Your task to perform on an android device: change the clock display to show seconds Image 0: 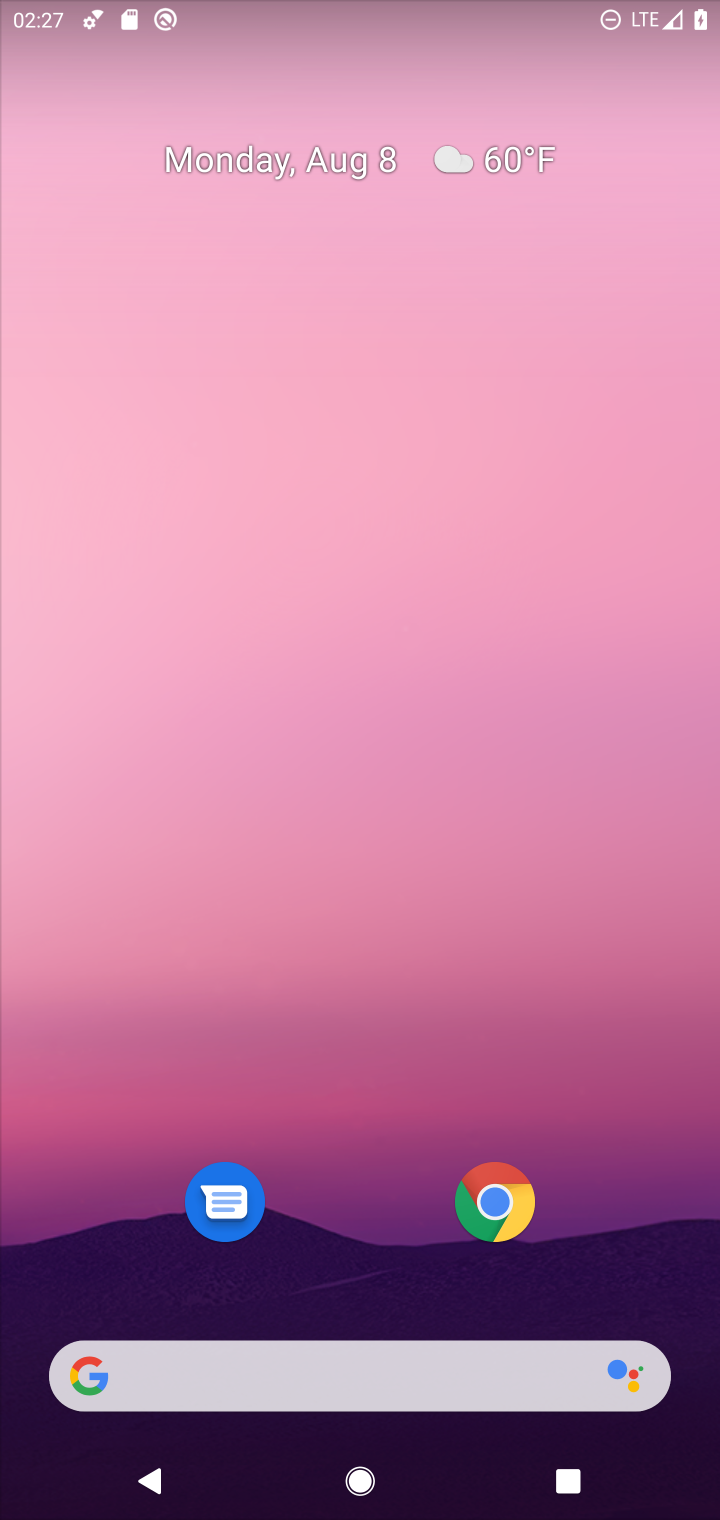
Step 0: press home button
Your task to perform on an android device: change the clock display to show seconds Image 1: 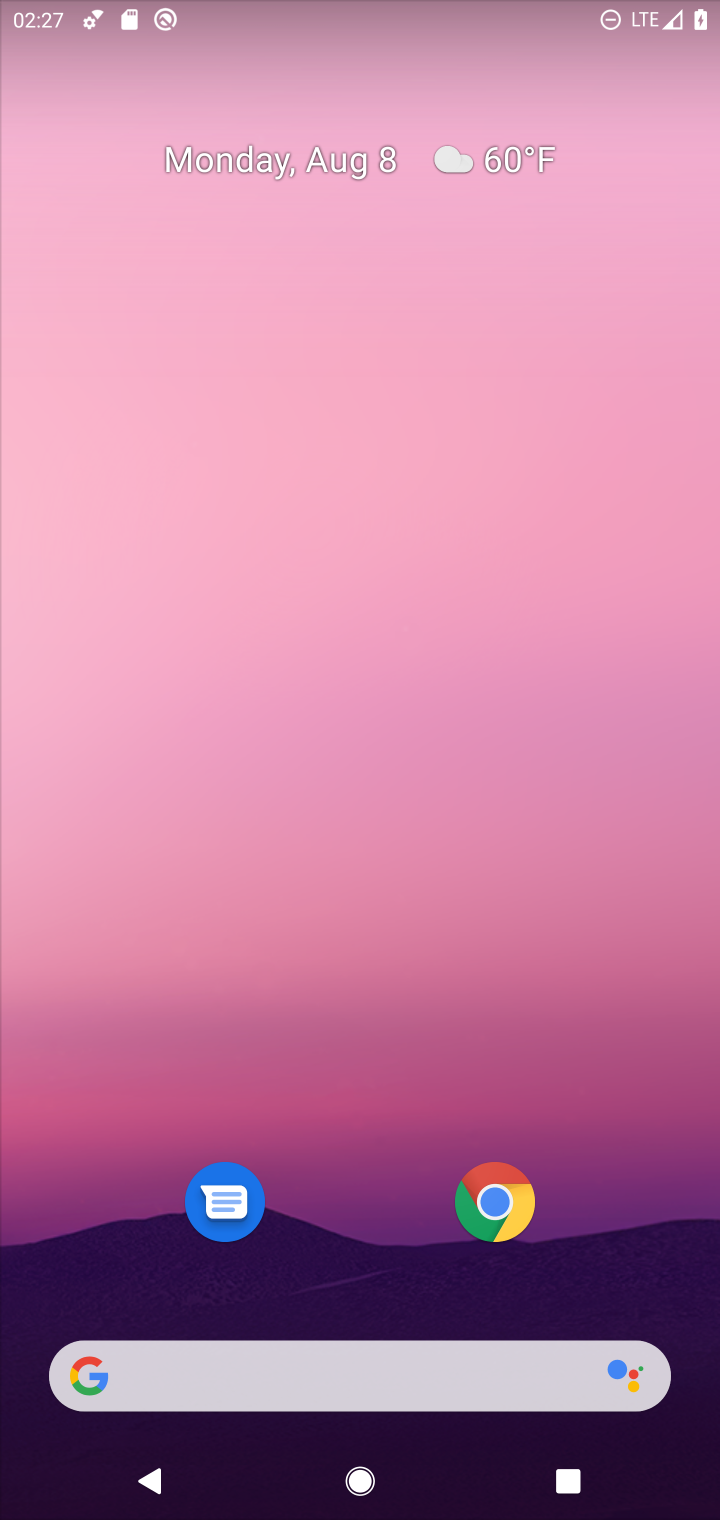
Step 1: drag from (626, 1282) to (584, 396)
Your task to perform on an android device: change the clock display to show seconds Image 2: 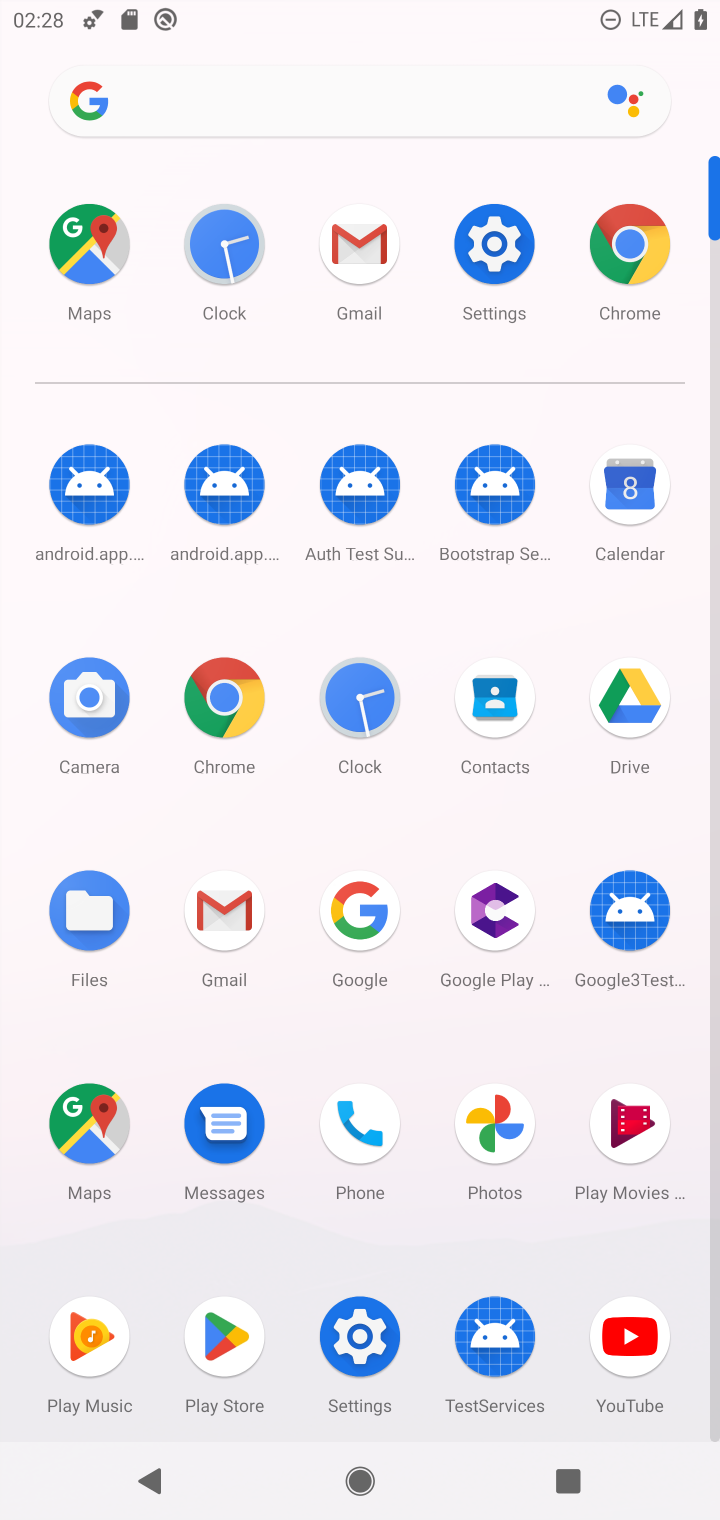
Step 2: click (350, 716)
Your task to perform on an android device: change the clock display to show seconds Image 3: 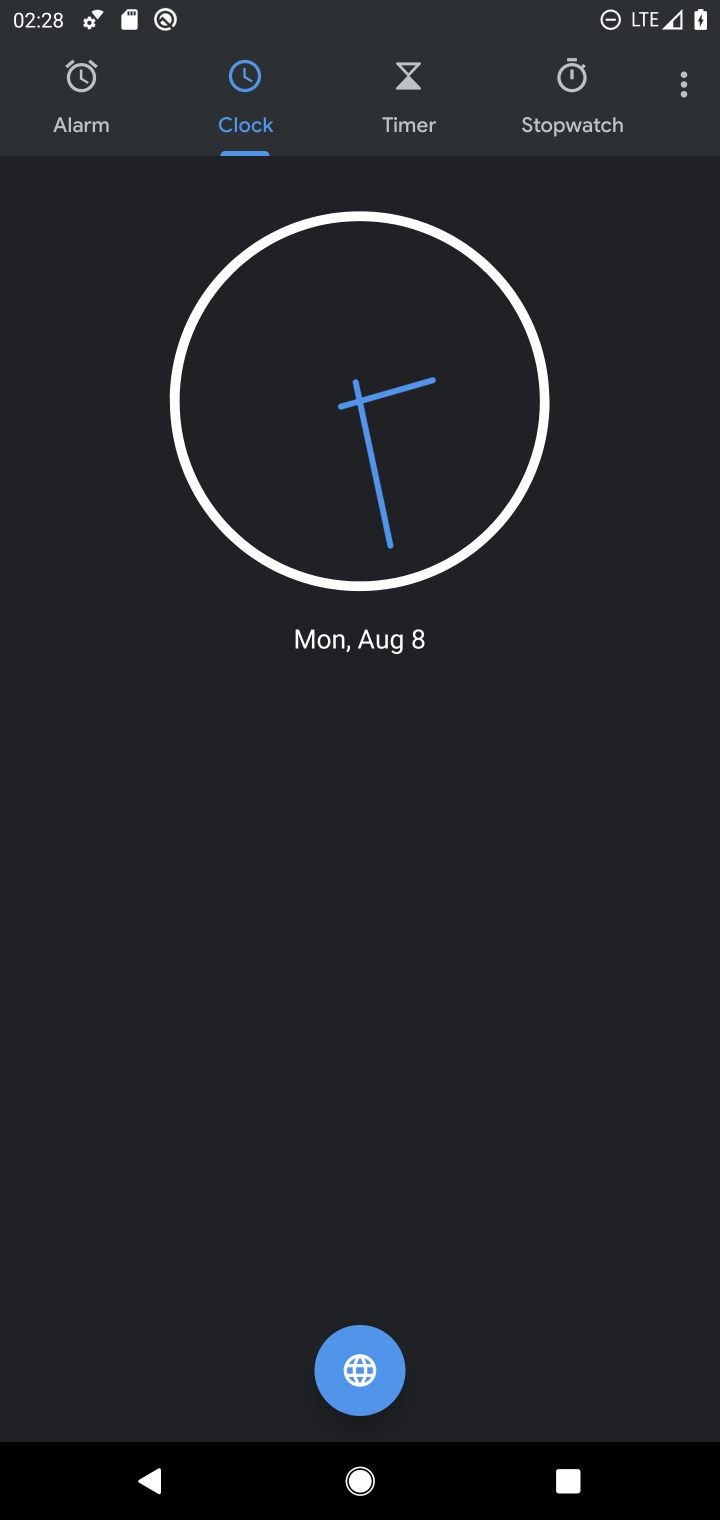
Step 3: click (679, 97)
Your task to perform on an android device: change the clock display to show seconds Image 4: 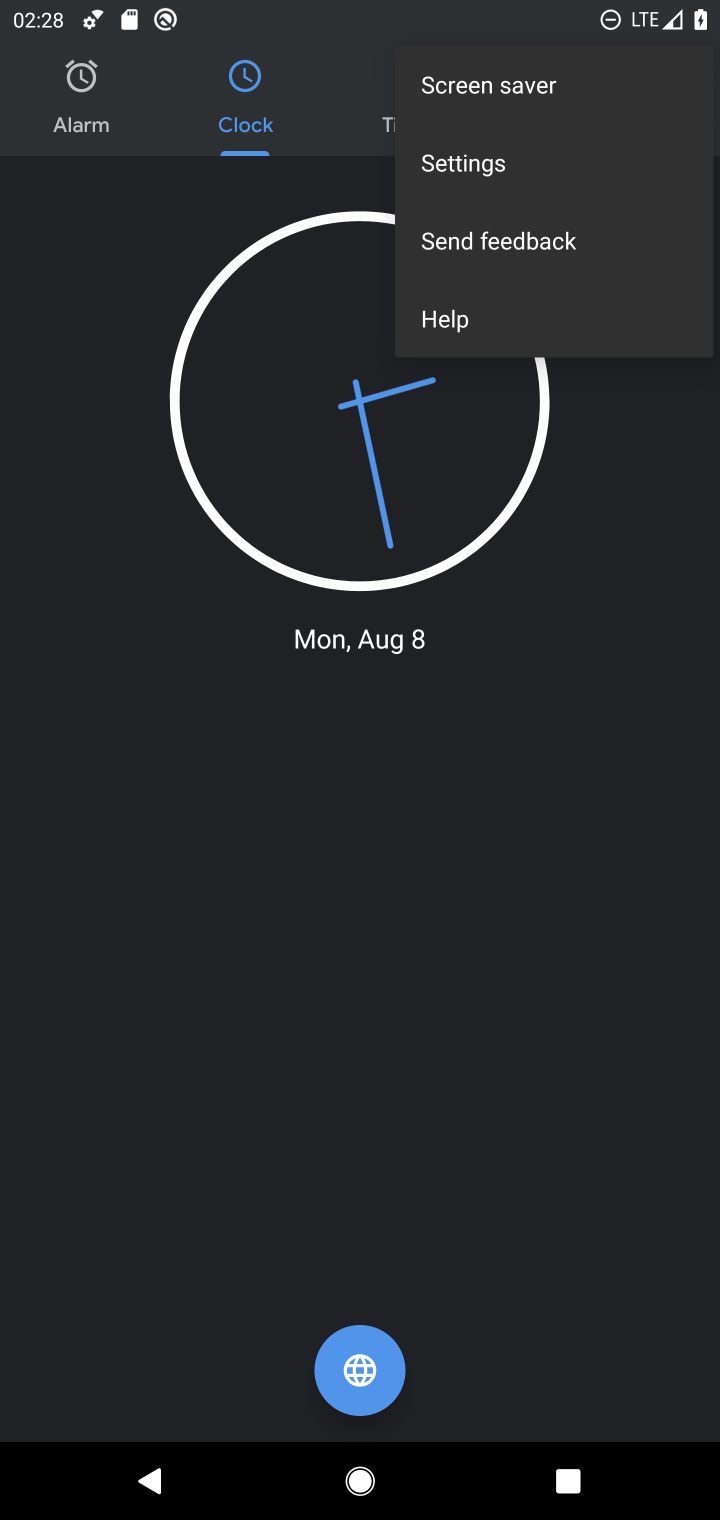
Step 4: click (481, 166)
Your task to perform on an android device: change the clock display to show seconds Image 5: 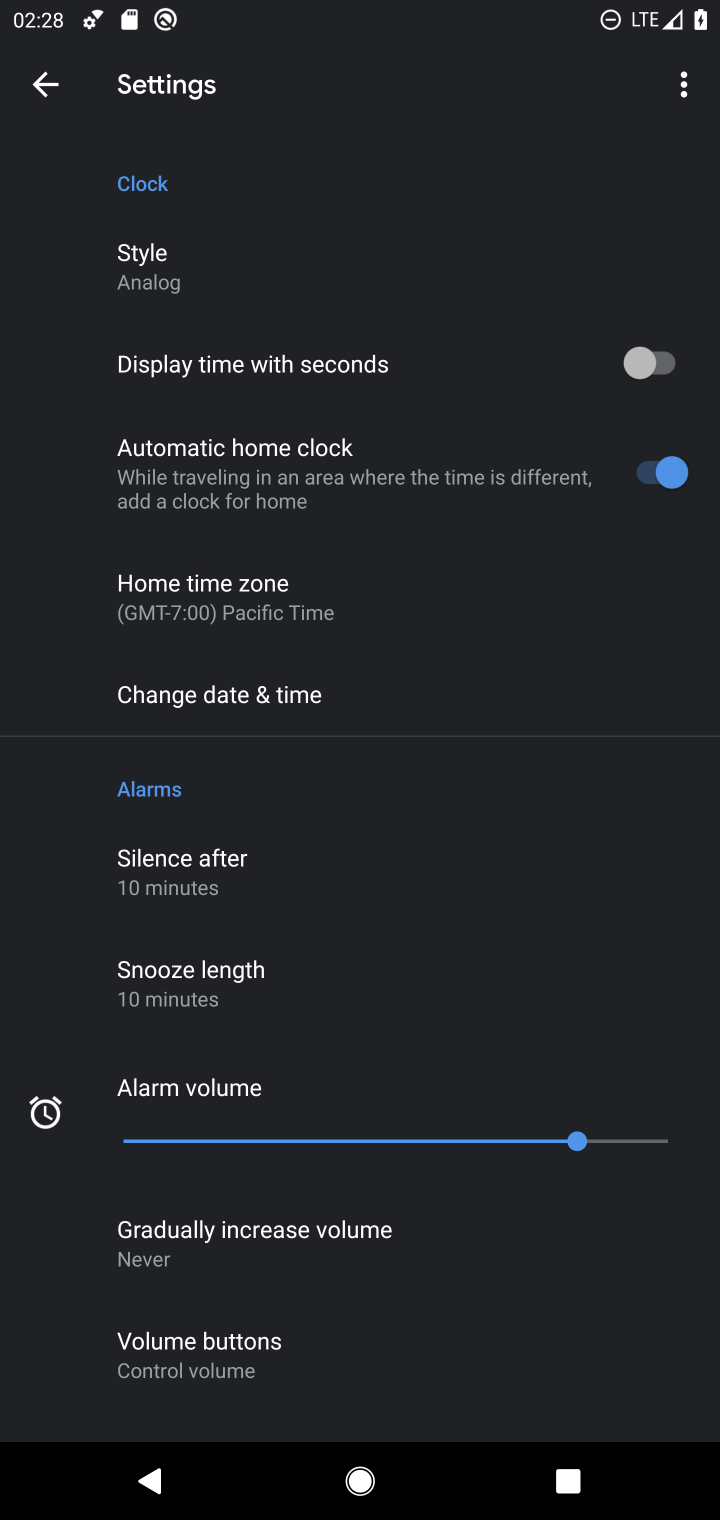
Step 5: drag from (617, 1010) to (581, 788)
Your task to perform on an android device: change the clock display to show seconds Image 6: 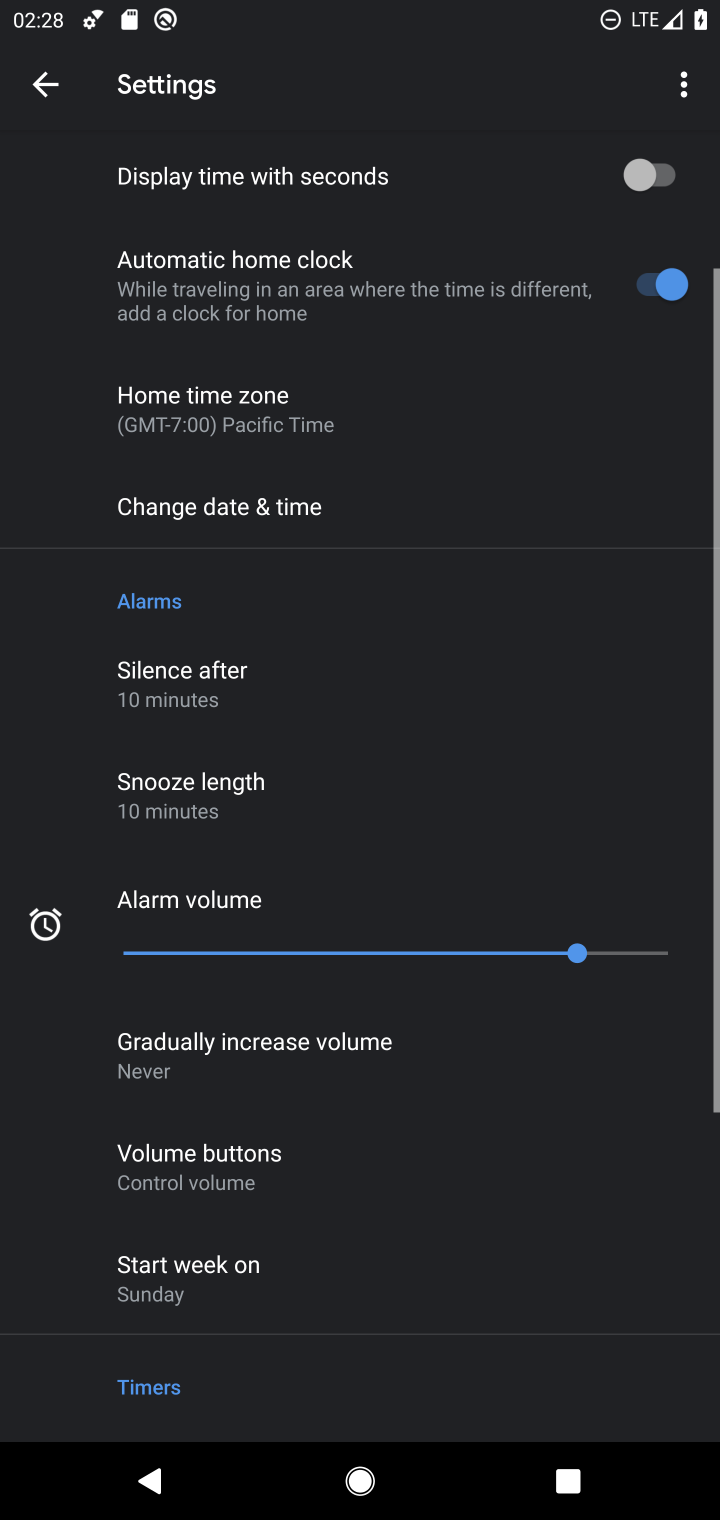
Step 6: drag from (625, 1117) to (625, 888)
Your task to perform on an android device: change the clock display to show seconds Image 7: 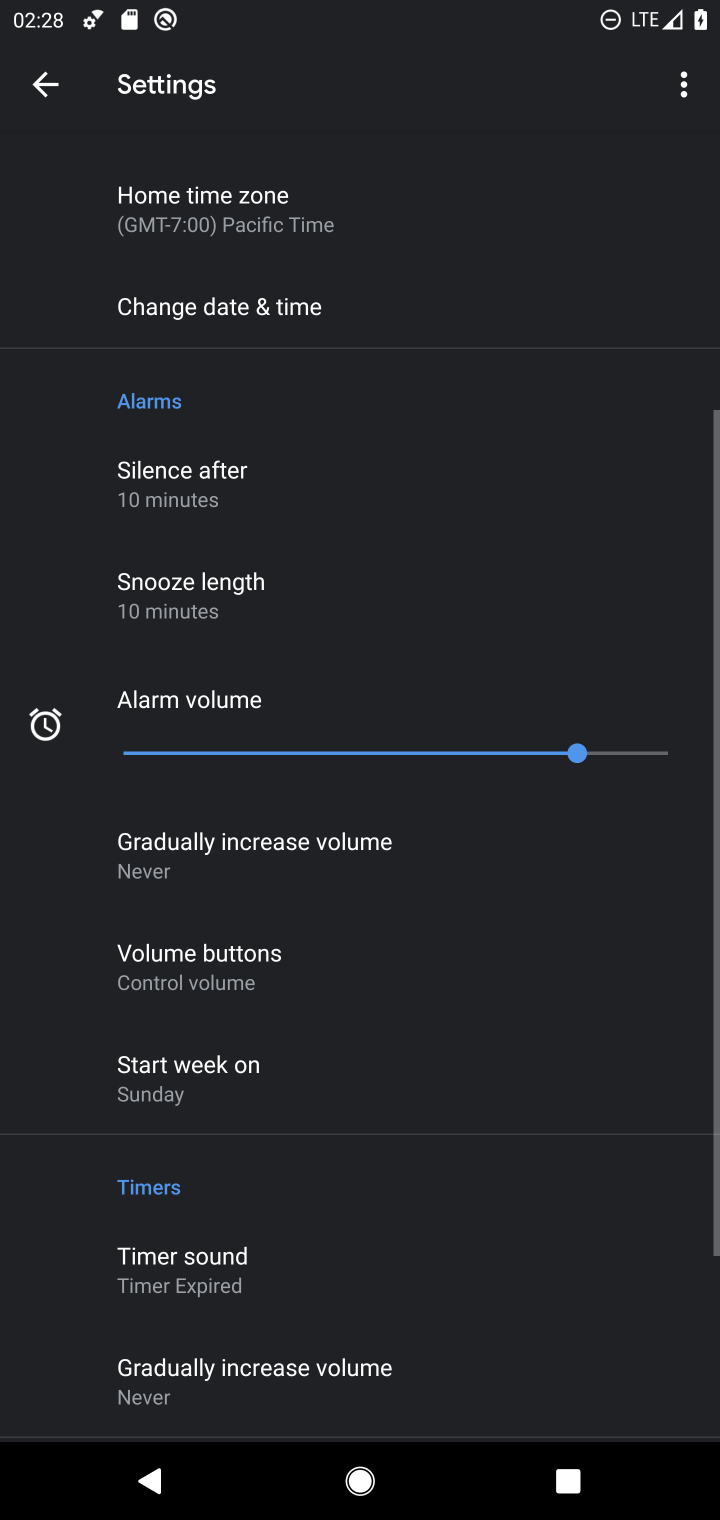
Step 7: drag from (594, 1194) to (588, 957)
Your task to perform on an android device: change the clock display to show seconds Image 8: 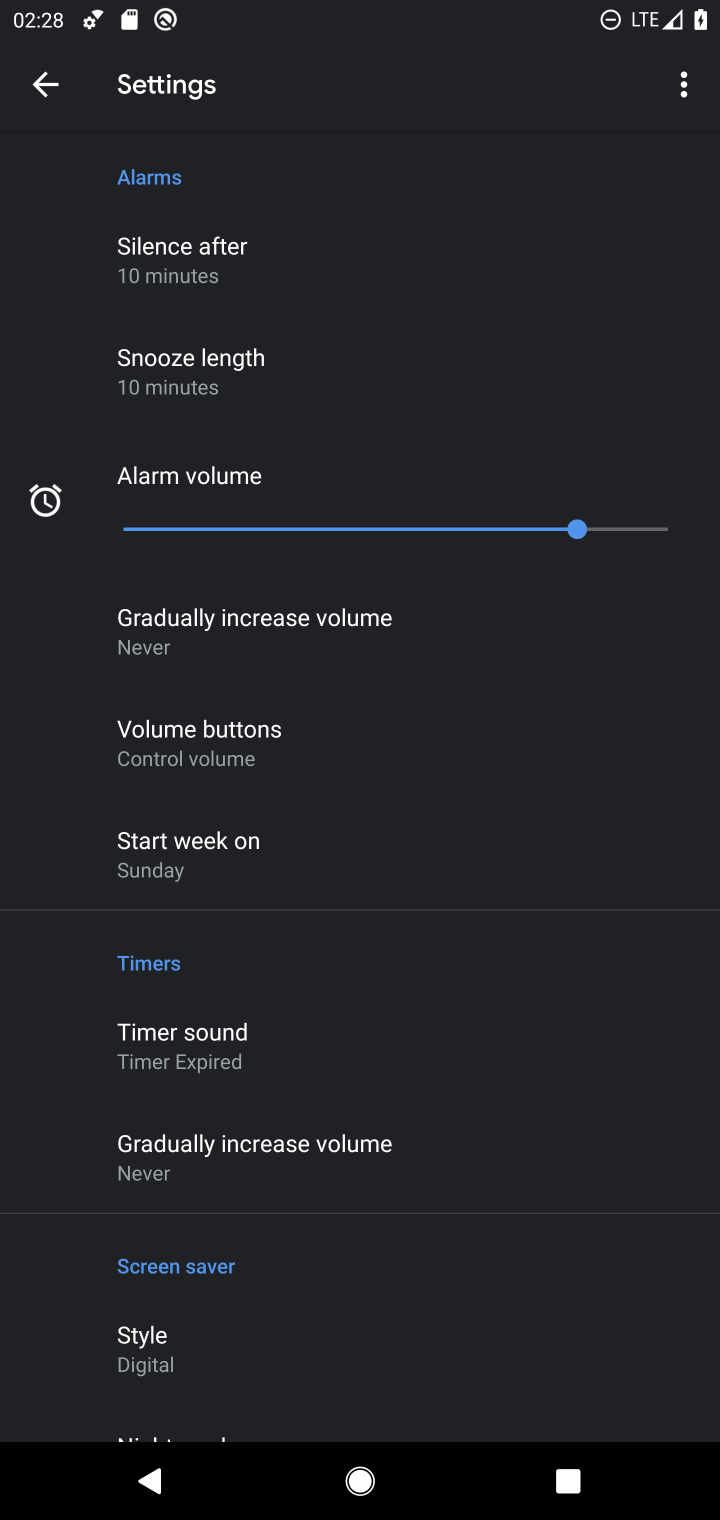
Step 8: drag from (602, 1193) to (566, 858)
Your task to perform on an android device: change the clock display to show seconds Image 9: 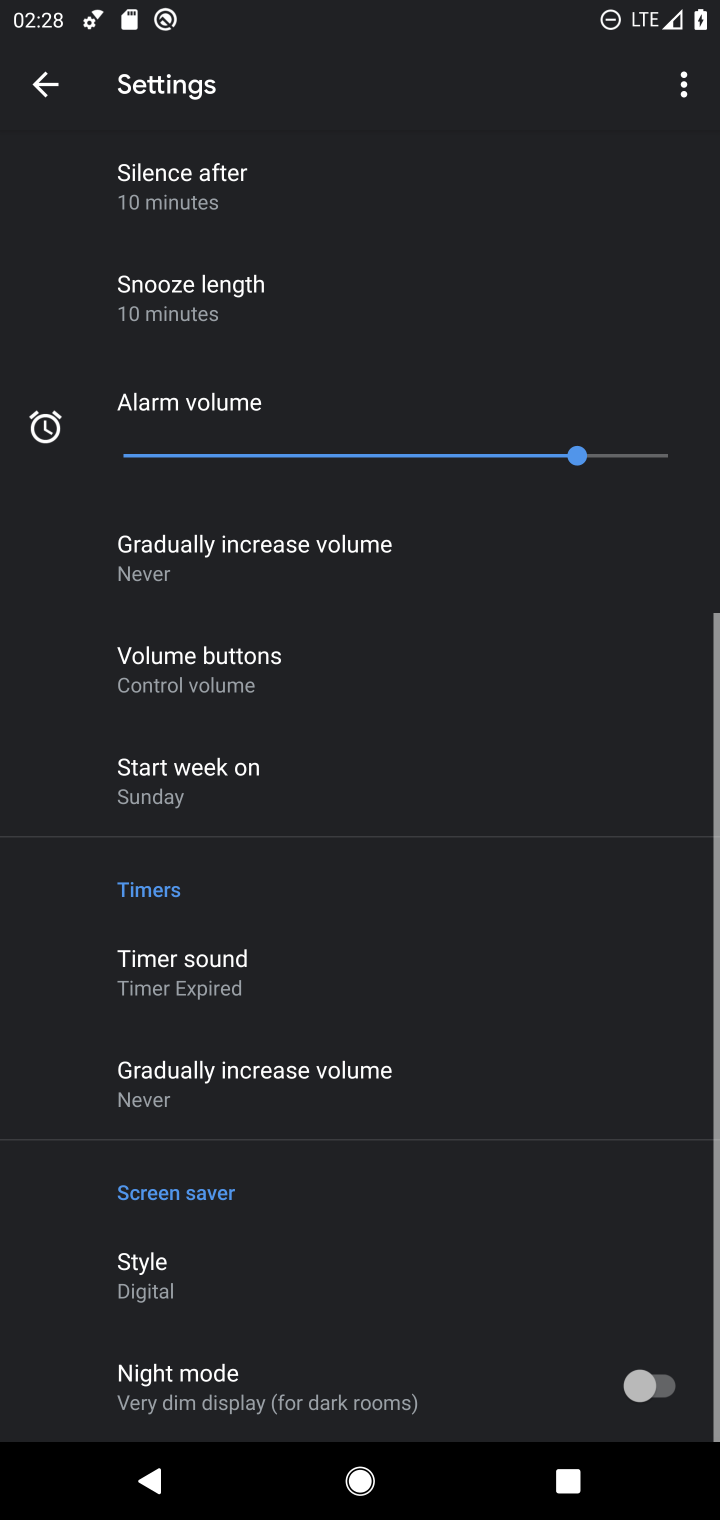
Step 9: drag from (585, 573) to (552, 912)
Your task to perform on an android device: change the clock display to show seconds Image 10: 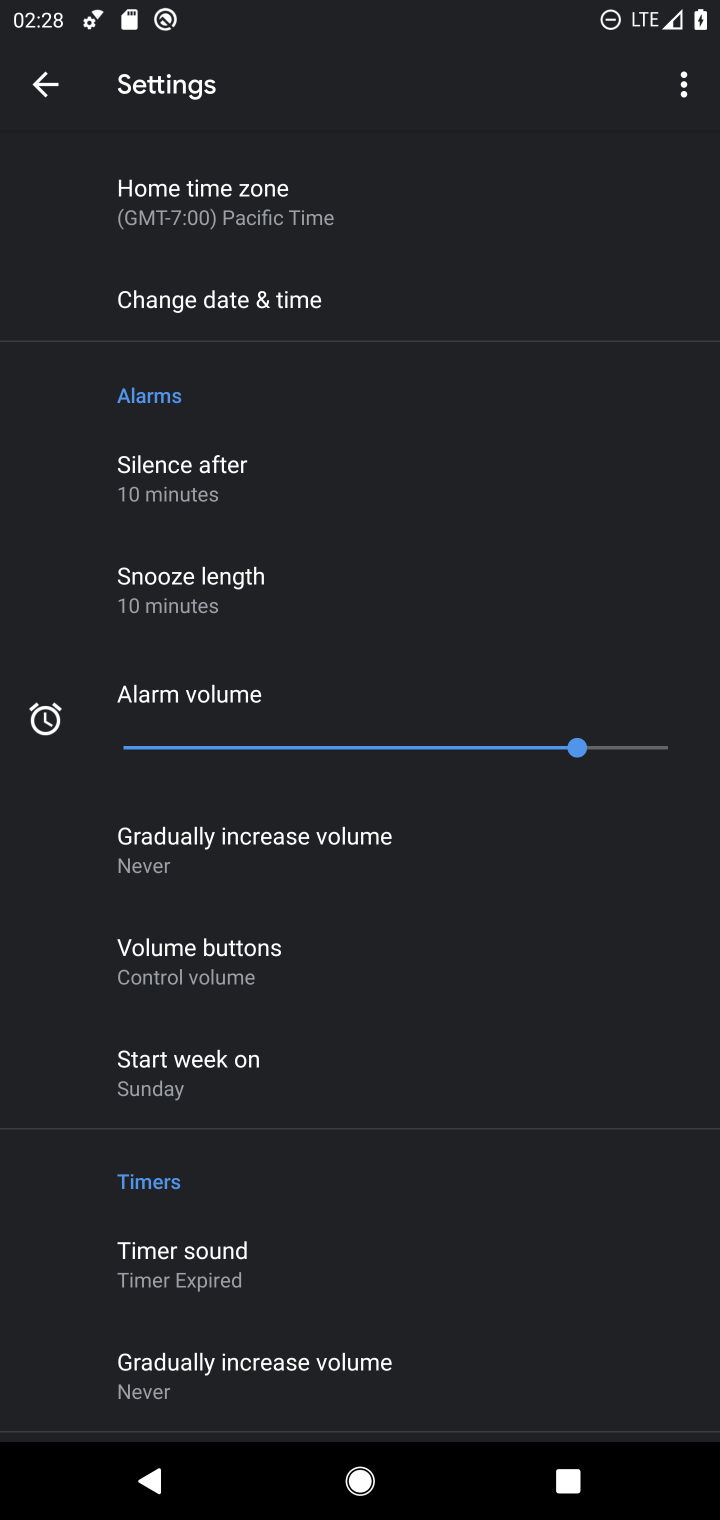
Step 10: drag from (635, 600) to (666, 805)
Your task to perform on an android device: change the clock display to show seconds Image 11: 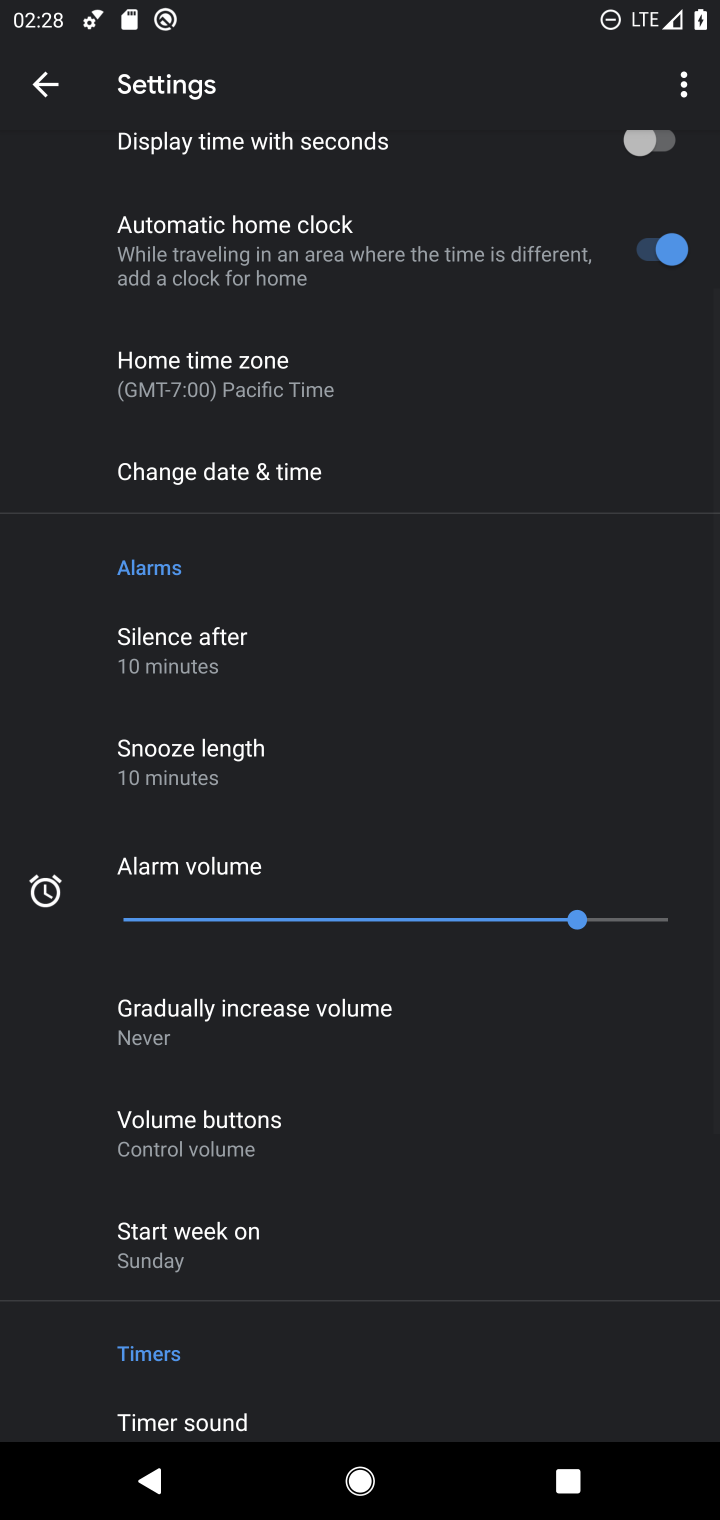
Step 11: drag from (629, 490) to (627, 815)
Your task to perform on an android device: change the clock display to show seconds Image 12: 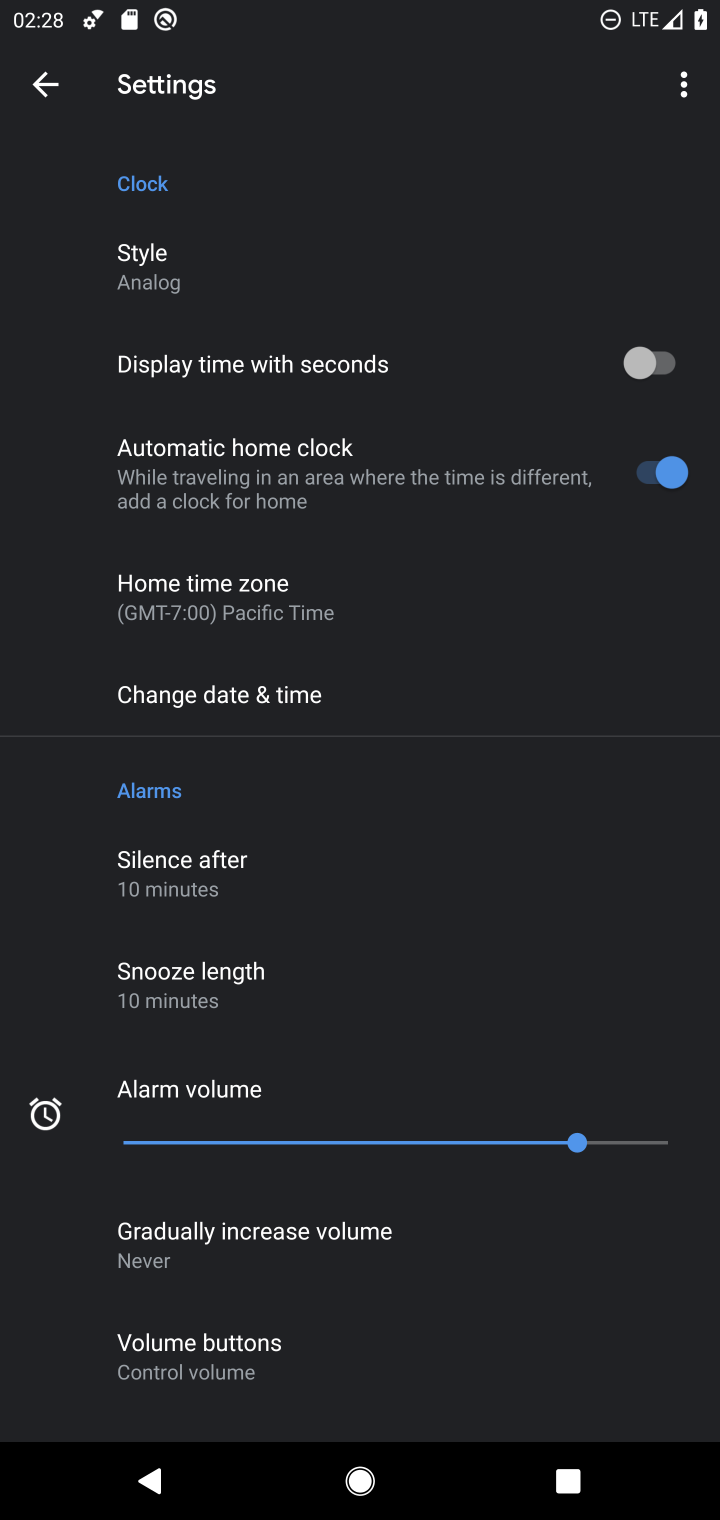
Step 12: click (632, 377)
Your task to perform on an android device: change the clock display to show seconds Image 13: 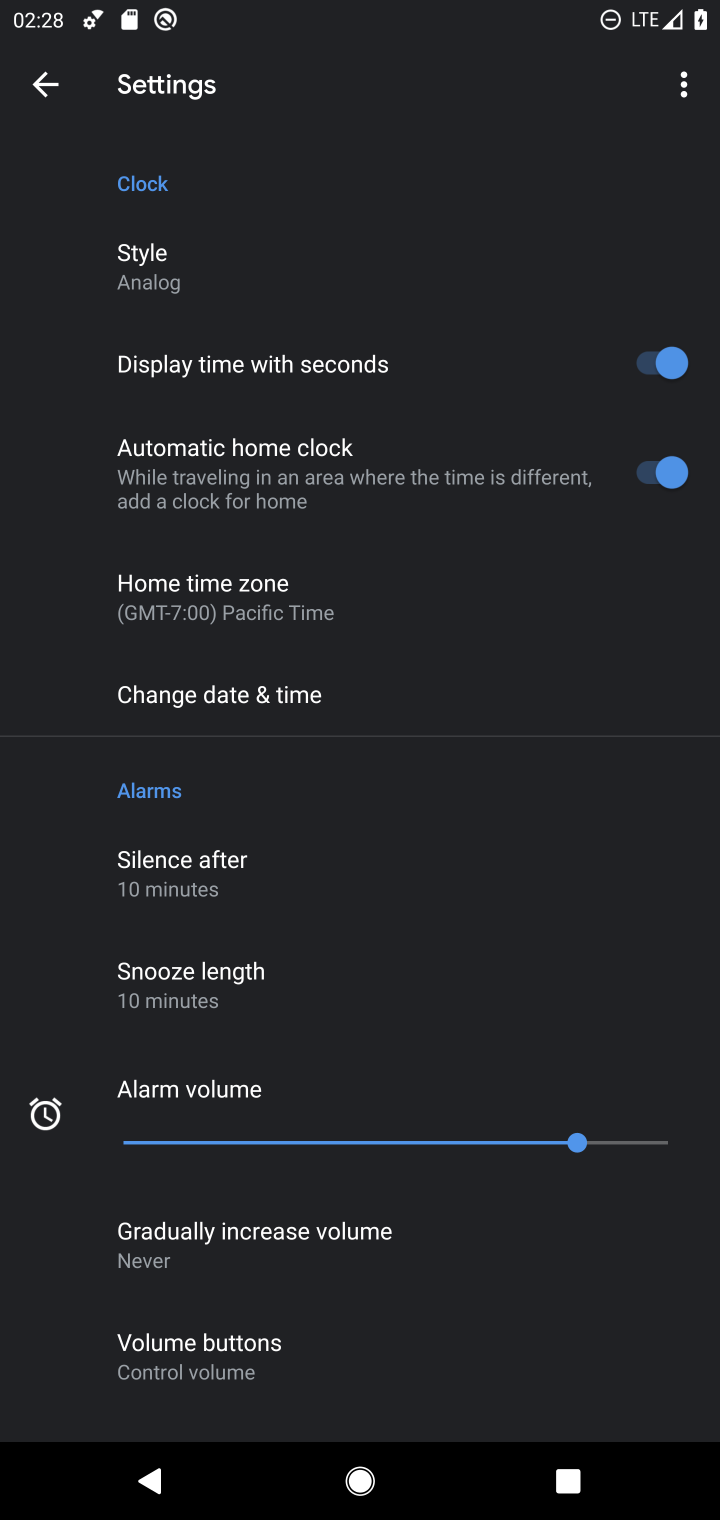
Step 13: task complete